Your task to perform on an android device: turn on location history Image 0: 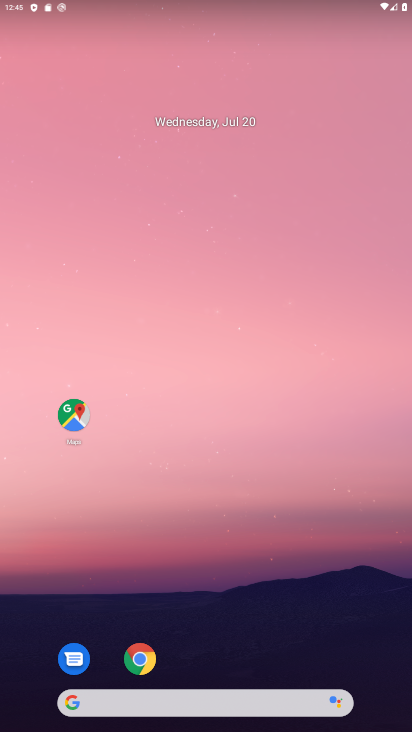
Step 0: drag from (370, 684) to (244, 66)
Your task to perform on an android device: turn on location history Image 1: 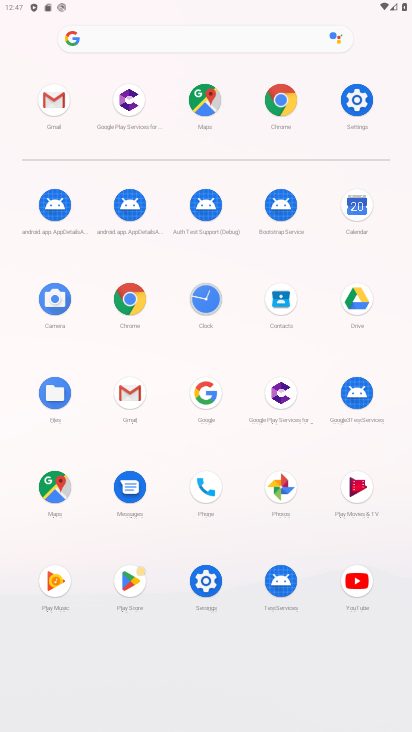
Step 1: click (207, 590)
Your task to perform on an android device: turn on location history Image 2: 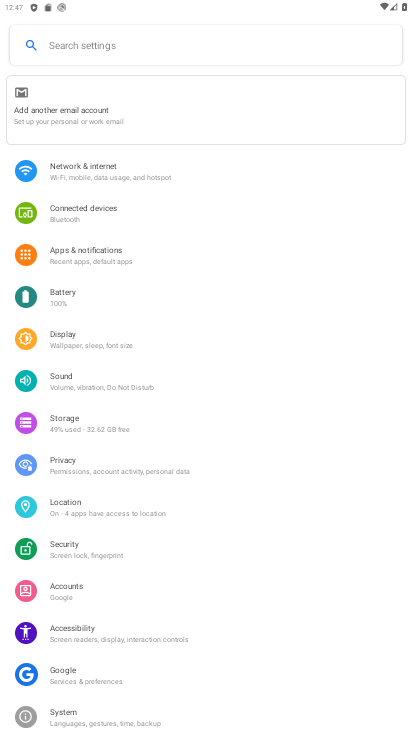
Step 2: click (81, 512)
Your task to perform on an android device: turn on location history Image 3: 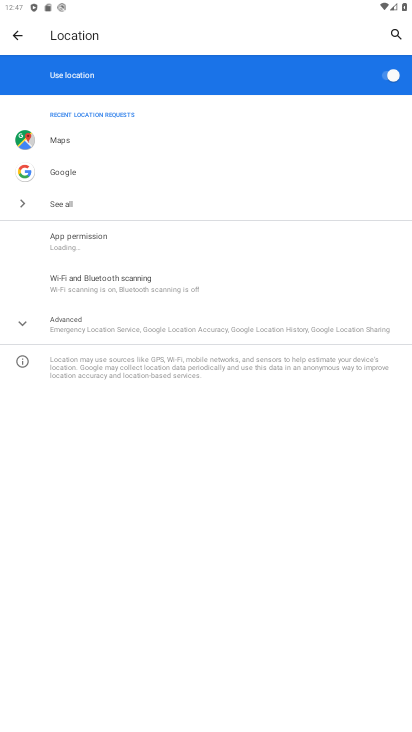
Step 3: click (114, 320)
Your task to perform on an android device: turn on location history Image 4: 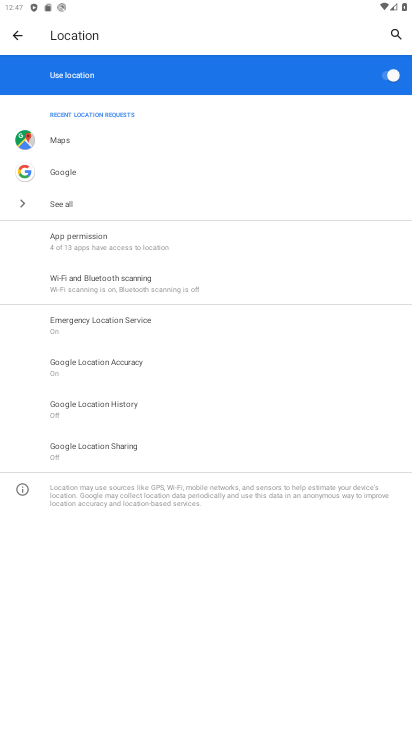
Step 4: click (121, 405)
Your task to perform on an android device: turn on location history Image 5: 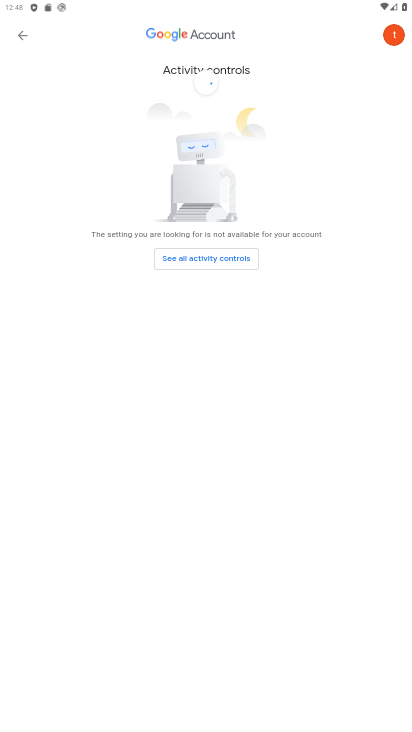
Step 5: task complete